Your task to perform on an android device: open the mobile data screen to see how much data has been used Image 0: 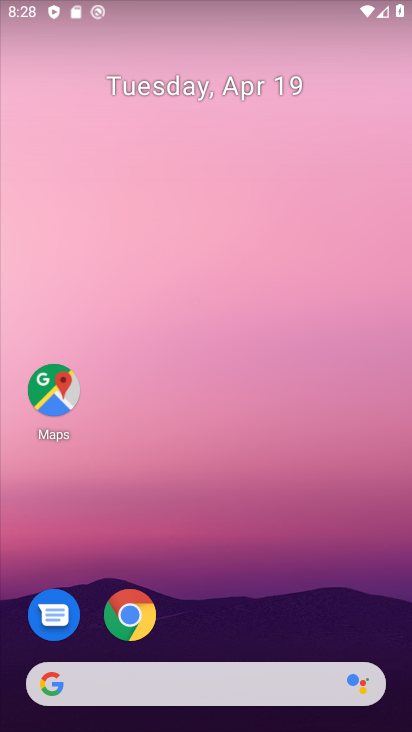
Step 0: drag from (200, 626) to (246, 60)
Your task to perform on an android device: open the mobile data screen to see how much data has been used Image 1: 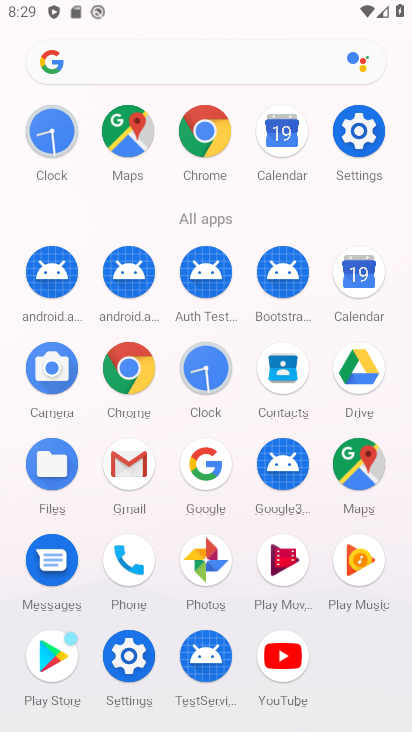
Step 1: click (350, 132)
Your task to perform on an android device: open the mobile data screen to see how much data has been used Image 2: 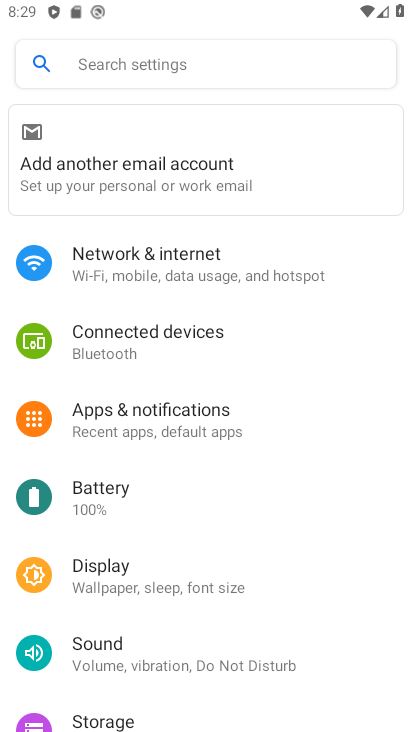
Step 2: click (210, 260)
Your task to perform on an android device: open the mobile data screen to see how much data has been used Image 3: 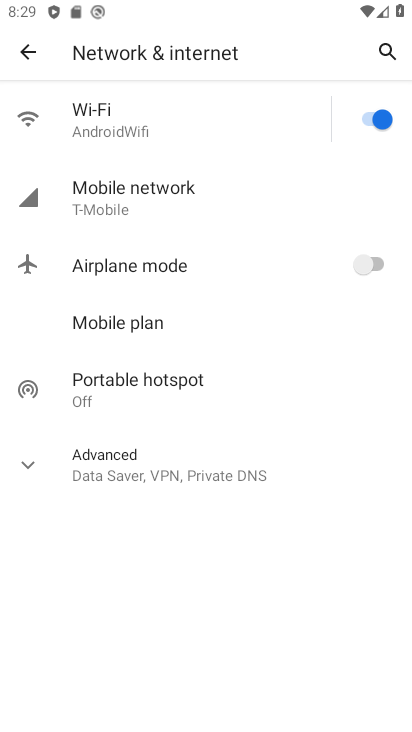
Step 3: click (152, 194)
Your task to perform on an android device: open the mobile data screen to see how much data has been used Image 4: 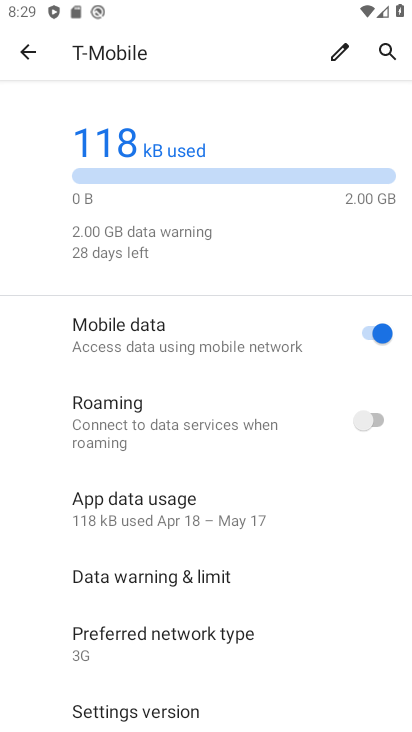
Step 4: task complete